Your task to perform on an android device: find snoozed emails in the gmail app Image 0: 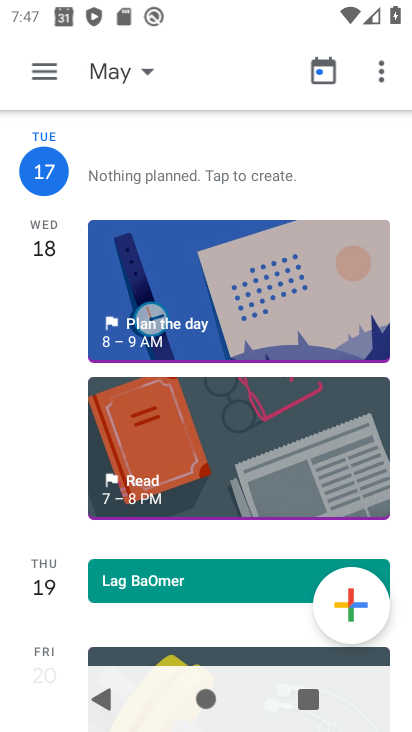
Step 0: press home button
Your task to perform on an android device: find snoozed emails in the gmail app Image 1: 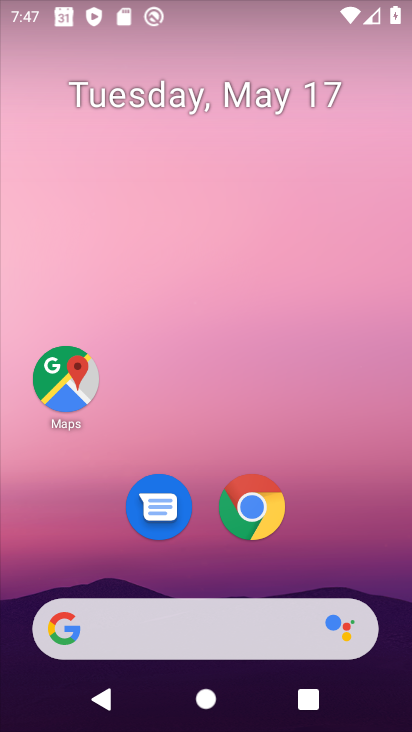
Step 1: drag from (352, 563) to (8, 25)
Your task to perform on an android device: find snoozed emails in the gmail app Image 2: 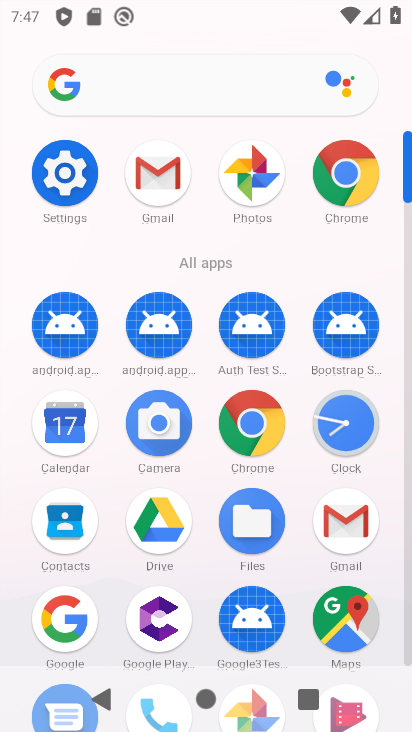
Step 2: click (154, 188)
Your task to perform on an android device: find snoozed emails in the gmail app Image 3: 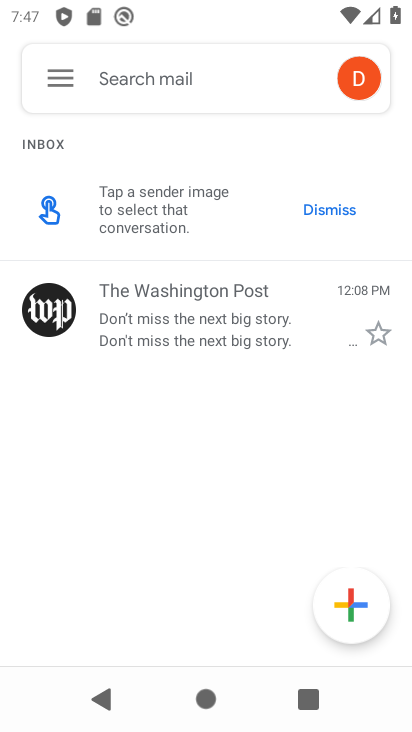
Step 3: click (56, 80)
Your task to perform on an android device: find snoozed emails in the gmail app Image 4: 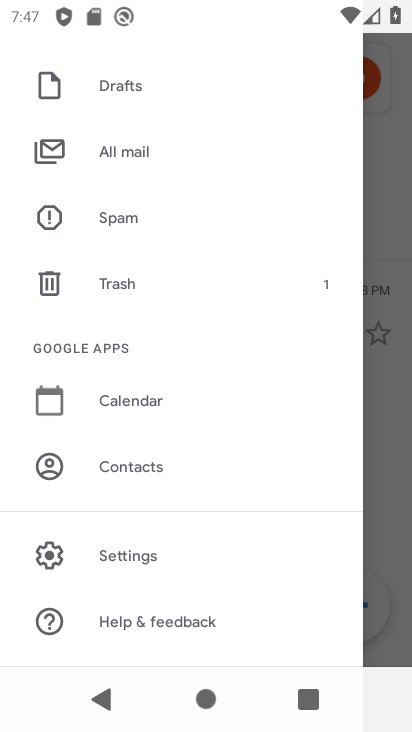
Step 4: drag from (161, 179) to (194, 592)
Your task to perform on an android device: find snoozed emails in the gmail app Image 5: 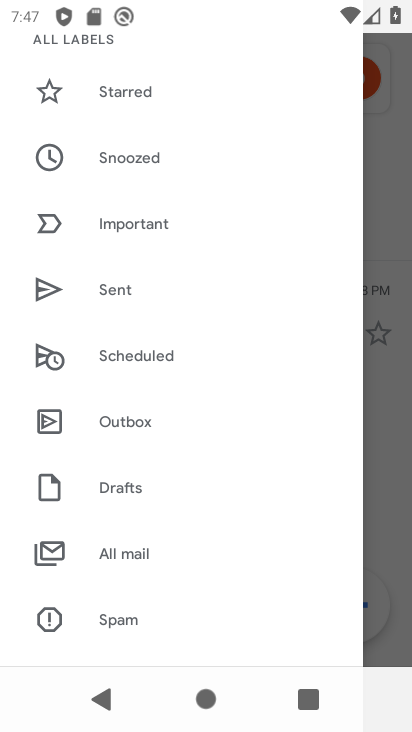
Step 5: click (123, 161)
Your task to perform on an android device: find snoozed emails in the gmail app Image 6: 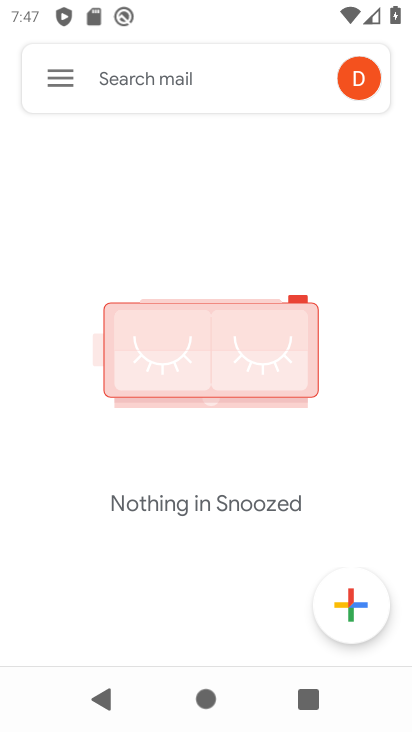
Step 6: task complete